Your task to perform on an android device: choose inbox layout in the gmail app Image 0: 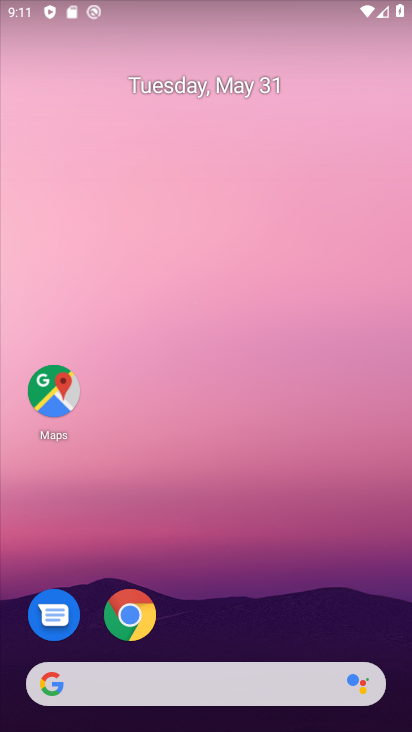
Step 0: drag from (221, 292) to (283, 5)
Your task to perform on an android device: choose inbox layout in the gmail app Image 1: 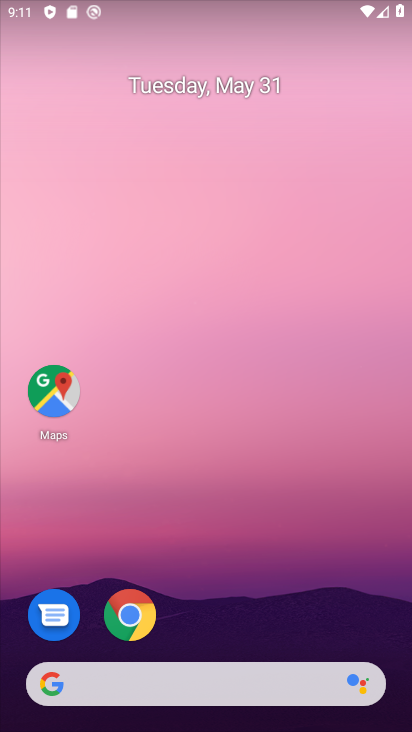
Step 1: drag from (277, 597) to (243, 161)
Your task to perform on an android device: choose inbox layout in the gmail app Image 2: 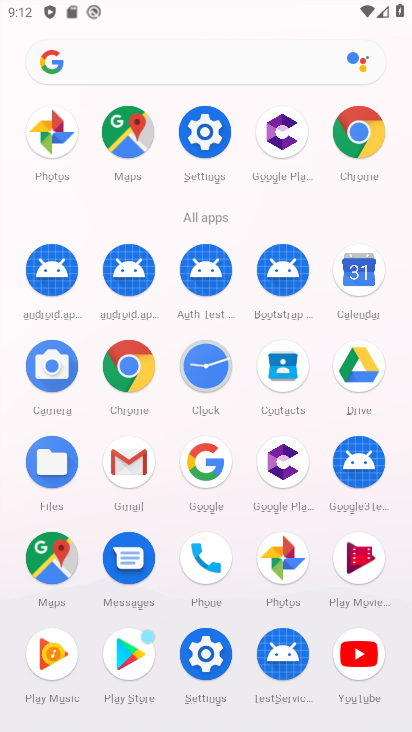
Step 2: click (129, 456)
Your task to perform on an android device: choose inbox layout in the gmail app Image 3: 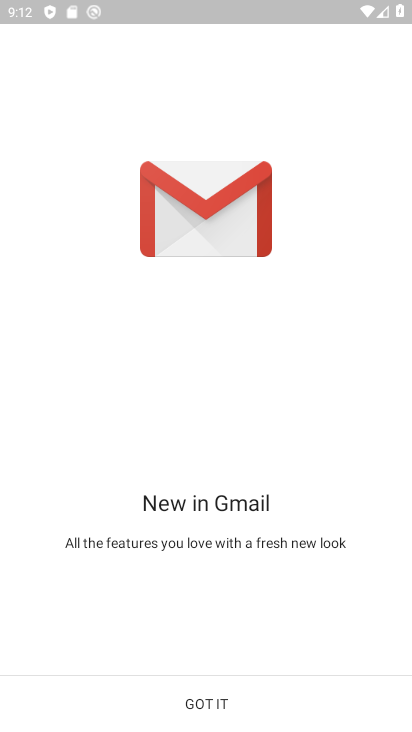
Step 3: click (178, 718)
Your task to perform on an android device: choose inbox layout in the gmail app Image 4: 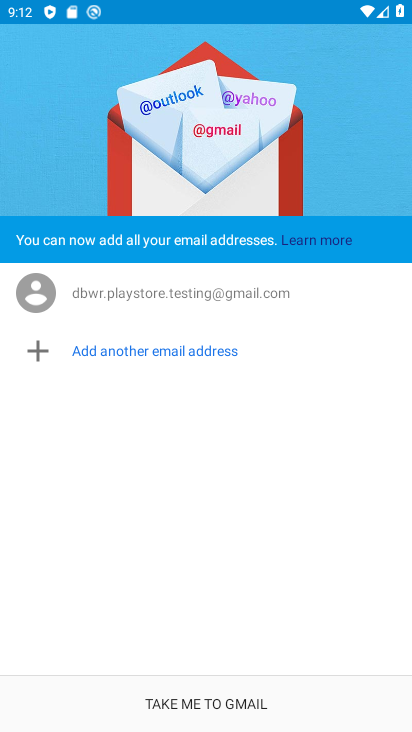
Step 4: click (178, 718)
Your task to perform on an android device: choose inbox layout in the gmail app Image 5: 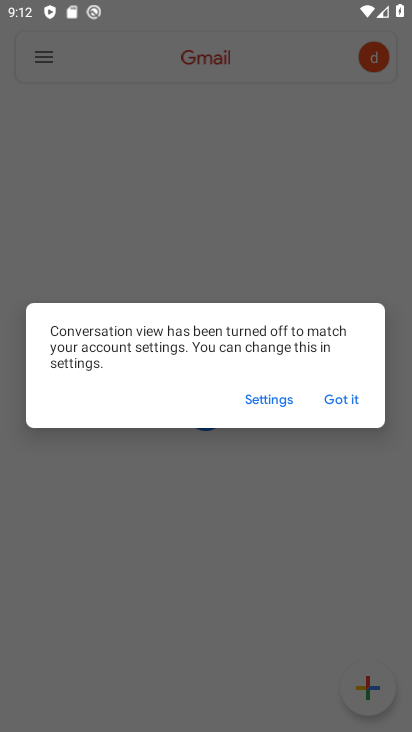
Step 5: click (347, 402)
Your task to perform on an android device: choose inbox layout in the gmail app Image 6: 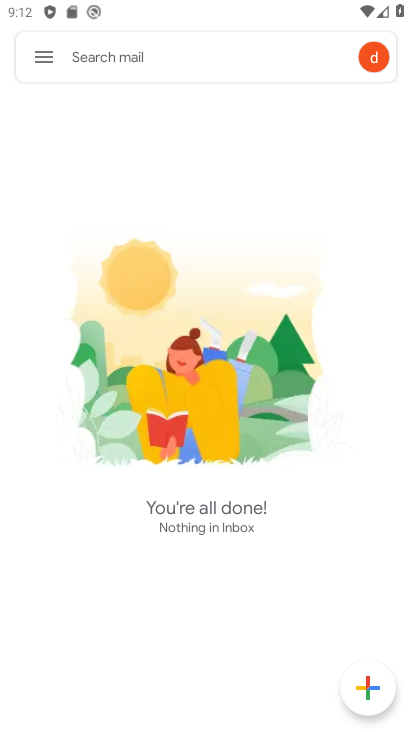
Step 6: click (53, 54)
Your task to perform on an android device: choose inbox layout in the gmail app Image 7: 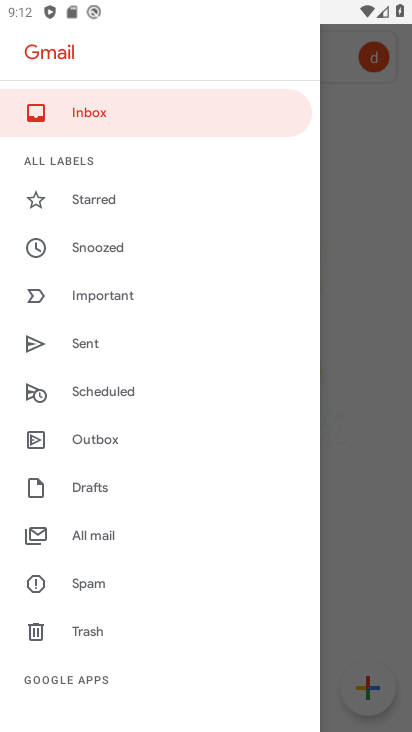
Step 7: drag from (115, 623) to (155, 199)
Your task to perform on an android device: choose inbox layout in the gmail app Image 8: 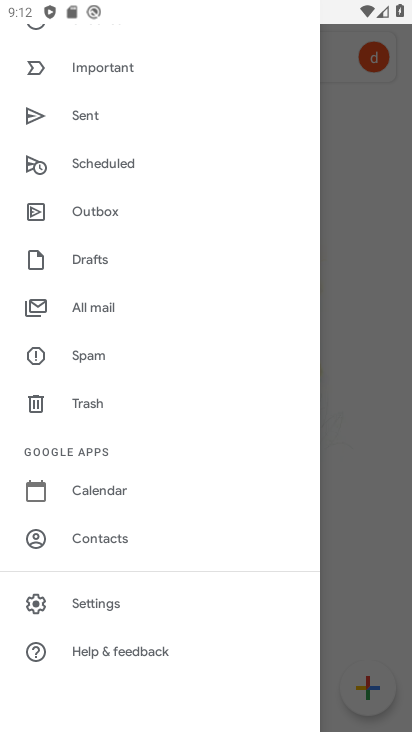
Step 8: drag from (104, 619) to (120, 500)
Your task to perform on an android device: choose inbox layout in the gmail app Image 9: 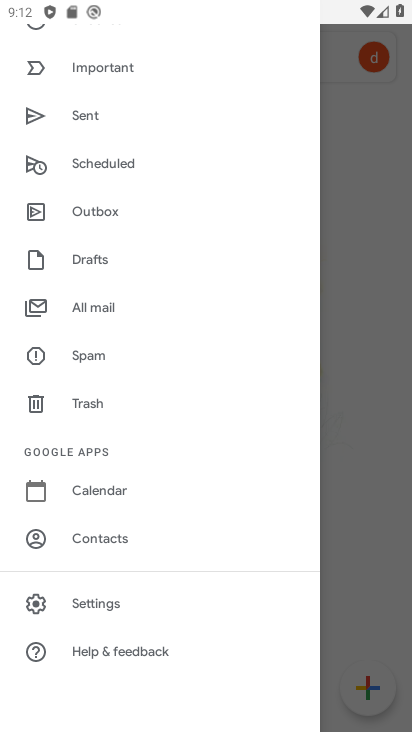
Step 9: click (73, 622)
Your task to perform on an android device: choose inbox layout in the gmail app Image 10: 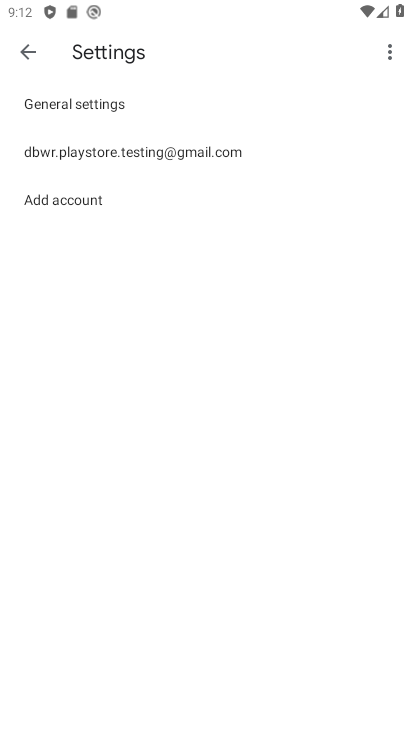
Step 10: click (170, 159)
Your task to perform on an android device: choose inbox layout in the gmail app Image 11: 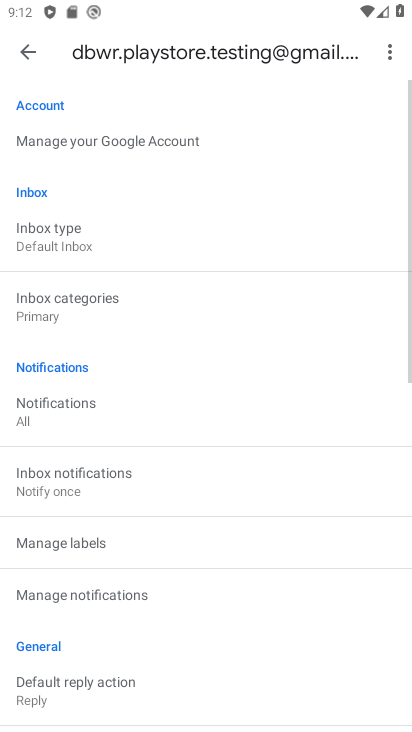
Step 11: click (63, 248)
Your task to perform on an android device: choose inbox layout in the gmail app Image 12: 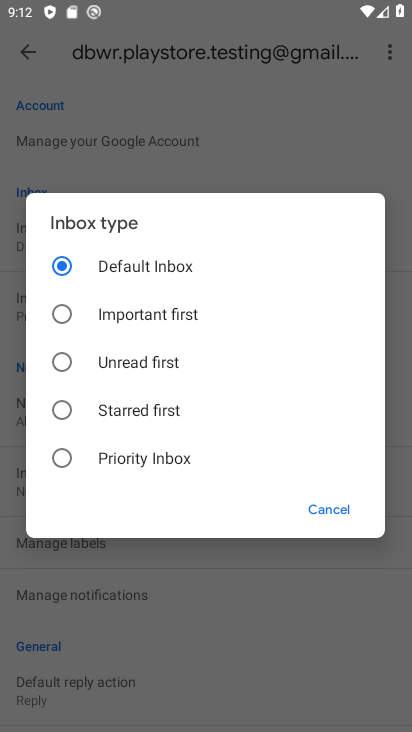
Step 12: click (74, 355)
Your task to perform on an android device: choose inbox layout in the gmail app Image 13: 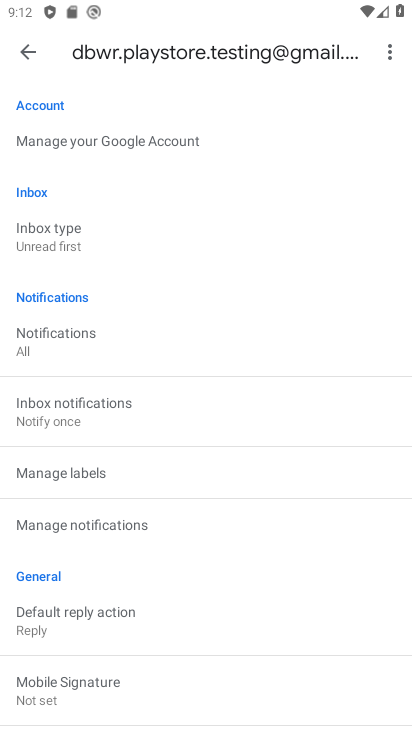
Step 13: task complete